Your task to perform on an android device: Search for Mexican restaurants on Maps Image 0: 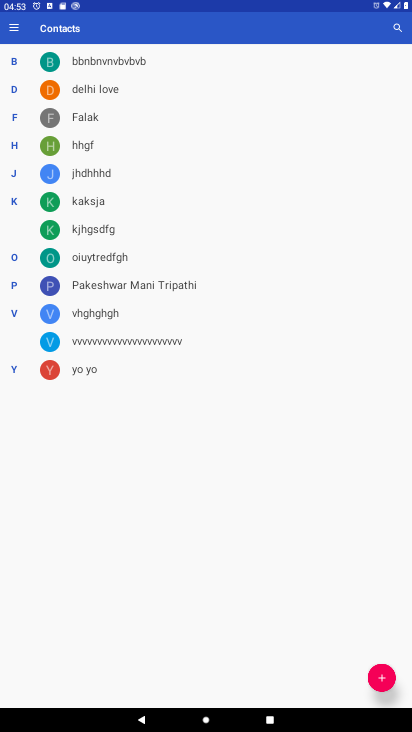
Step 0: press home button
Your task to perform on an android device: Search for Mexican restaurants on Maps Image 1: 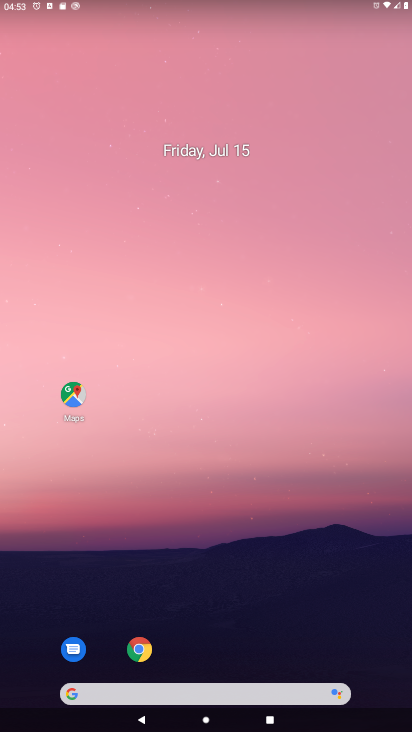
Step 1: click (74, 395)
Your task to perform on an android device: Search for Mexican restaurants on Maps Image 2: 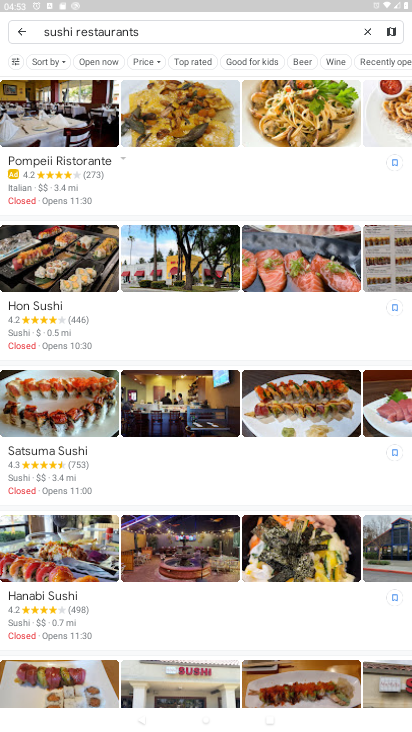
Step 2: click (365, 32)
Your task to perform on an android device: Search for Mexican restaurants on Maps Image 3: 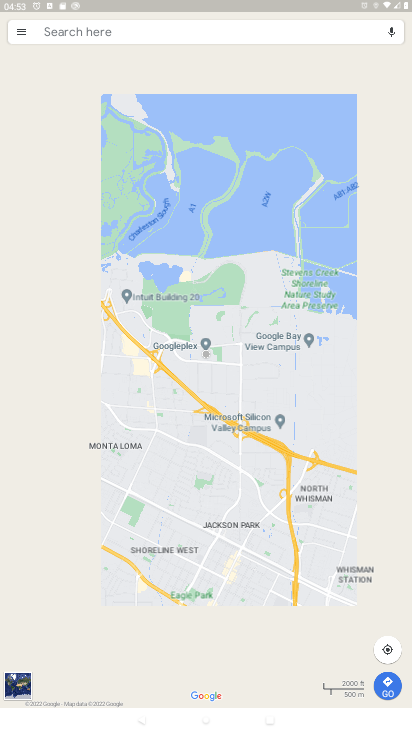
Step 3: click (70, 32)
Your task to perform on an android device: Search for Mexican restaurants on Maps Image 4: 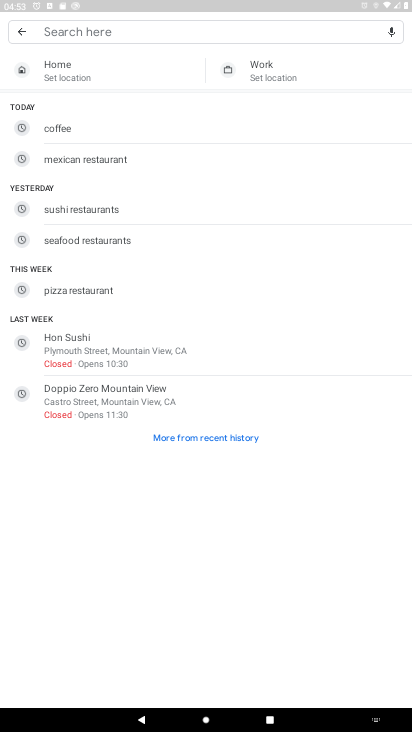
Step 4: type "Mexican restaurants"
Your task to perform on an android device: Search for Mexican restaurants on Maps Image 5: 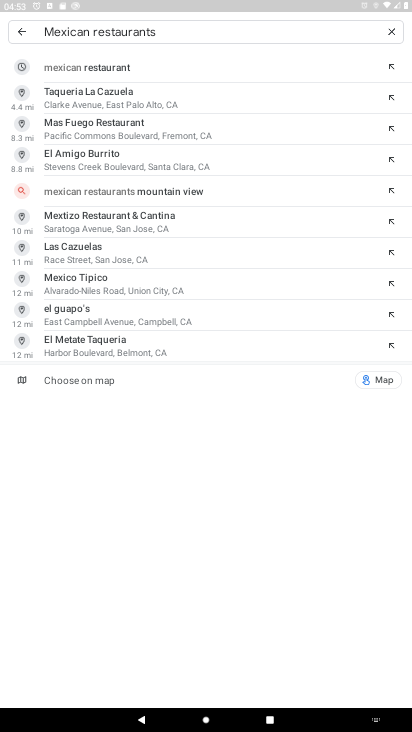
Step 5: click (89, 63)
Your task to perform on an android device: Search for Mexican restaurants on Maps Image 6: 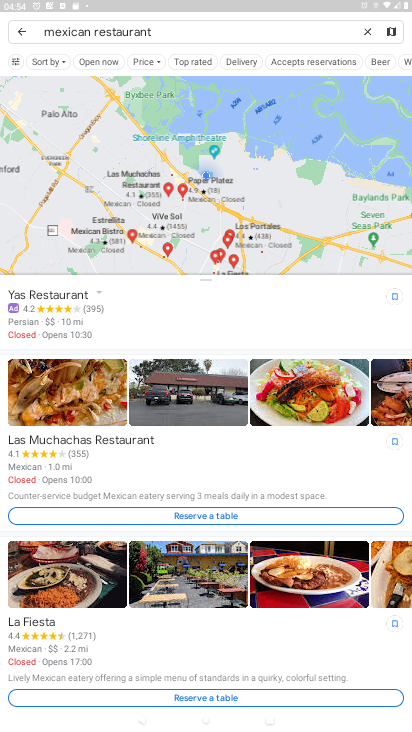
Step 6: task complete